Your task to perform on an android device: turn on the 12-hour format for clock Image 0: 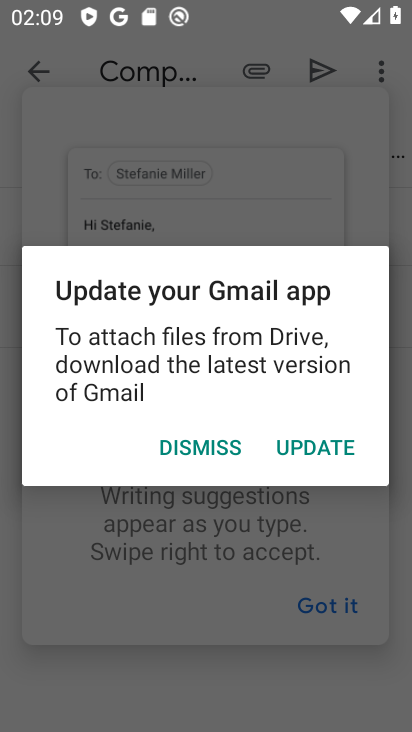
Step 0: press home button
Your task to perform on an android device: turn on the 12-hour format for clock Image 1: 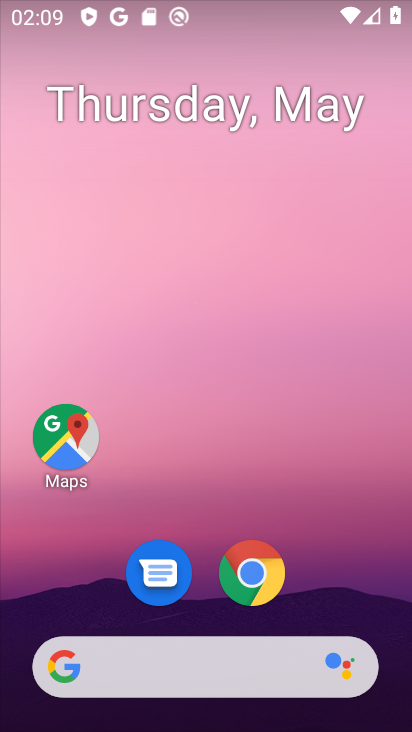
Step 1: drag from (244, 591) to (269, 187)
Your task to perform on an android device: turn on the 12-hour format for clock Image 2: 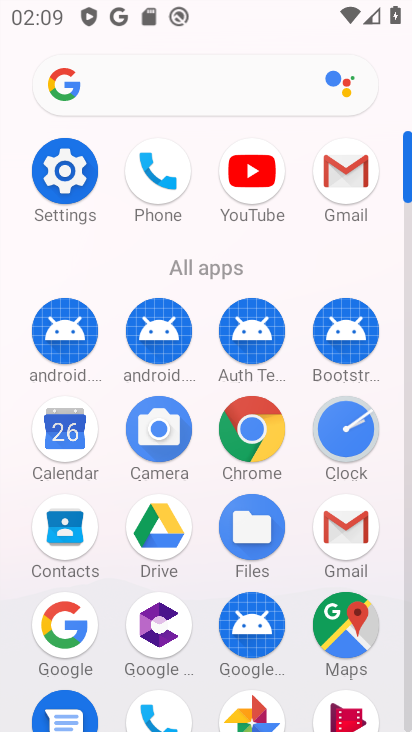
Step 2: click (343, 421)
Your task to perform on an android device: turn on the 12-hour format for clock Image 3: 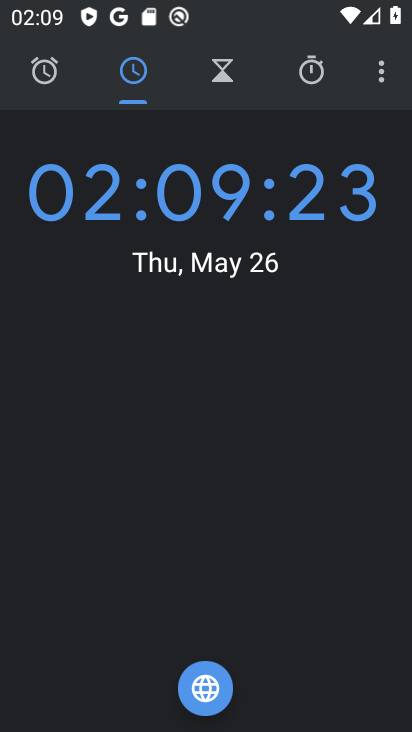
Step 3: click (376, 86)
Your task to perform on an android device: turn on the 12-hour format for clock Image 4: 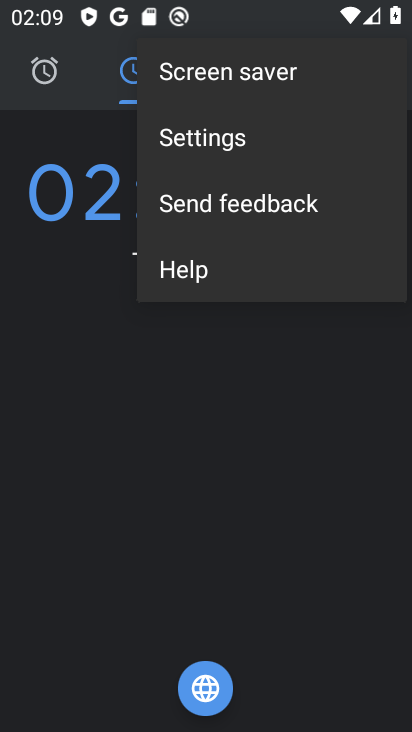
Step 4: click (239, 142)
Your task to perform on an android device: turn on the 12-hour format for clock Image 5: 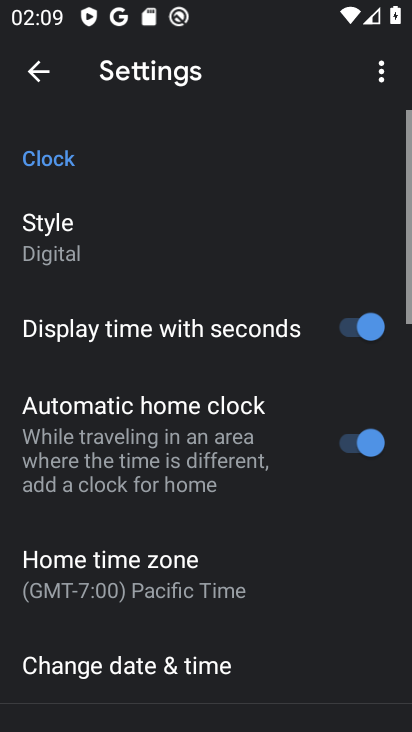
Step 5: drag from (153, 627) to (218, 378)
Your task to perform on an android device: turn on the 12-hour format for clock Image 6: 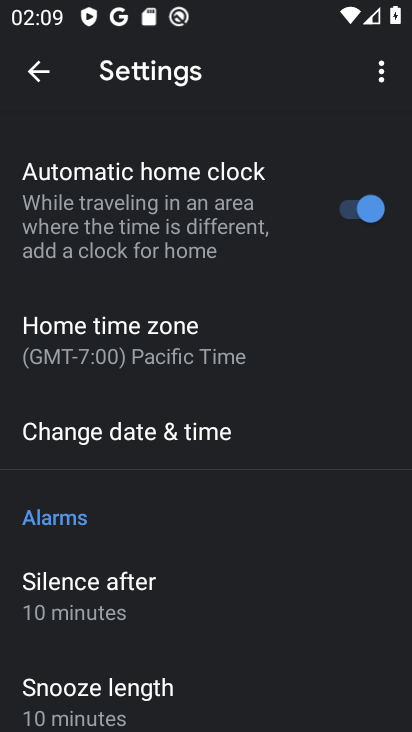
Step 6: click (158, 407)
Your task to perform on an android device: turn on the 12-hour format for clock Image 7: 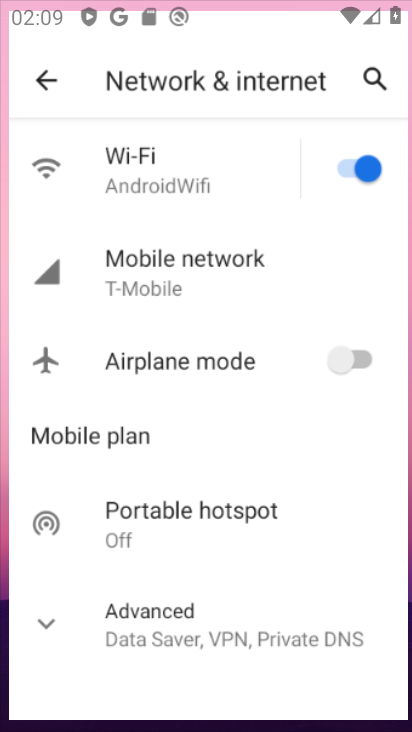
Step 7: click (169, 430)
Your task to perform on an android device: turn on the 12-hour format for clock Image 8: 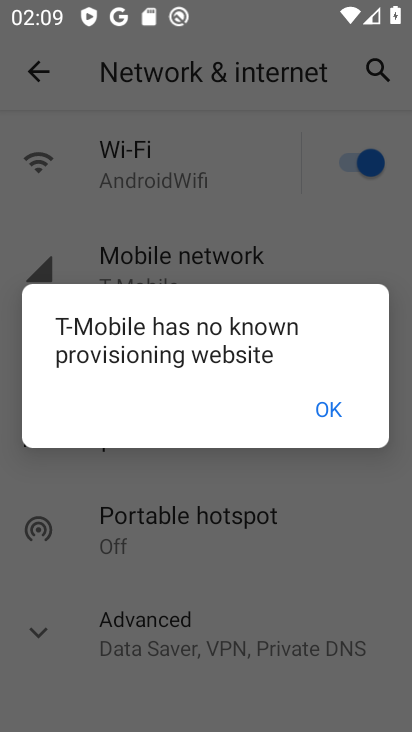
Step 8: drag from (221, 556) to (231, 313)
Your task to perform on an android device: turn on the 12-hour format for clock Image 9: 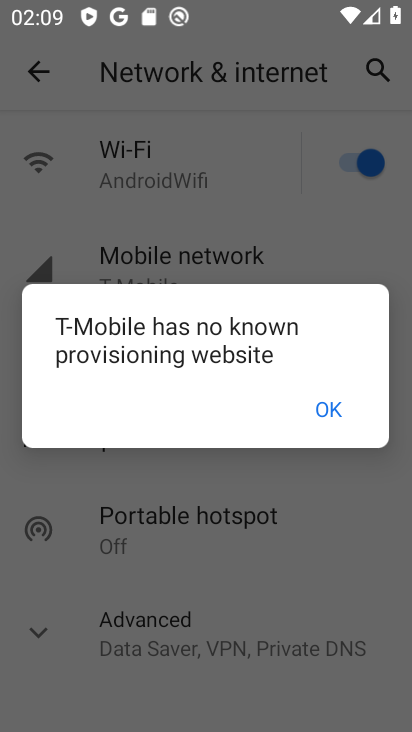
Step 9: click (305, 415)
Your task to perform on an android device: turn on the 12-hour format for clock Image 10: 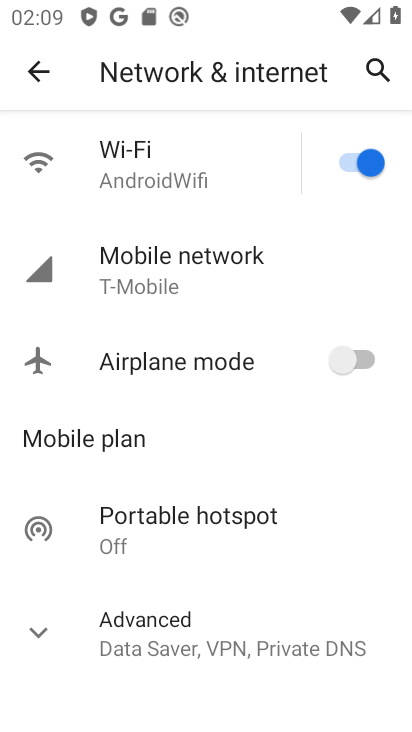
Step 10: click (47, 61)
Your task to perform on an android device: turn on the 12-hour format for clock Image 11: 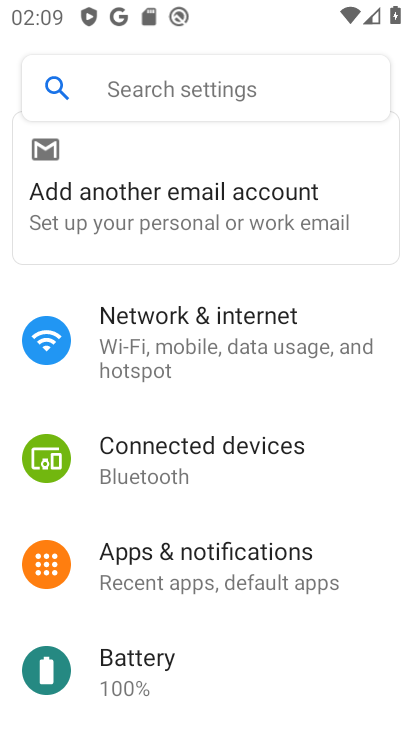
Step 11: task complete